Your task to perform on an android device: Go to battery settings Image 0: 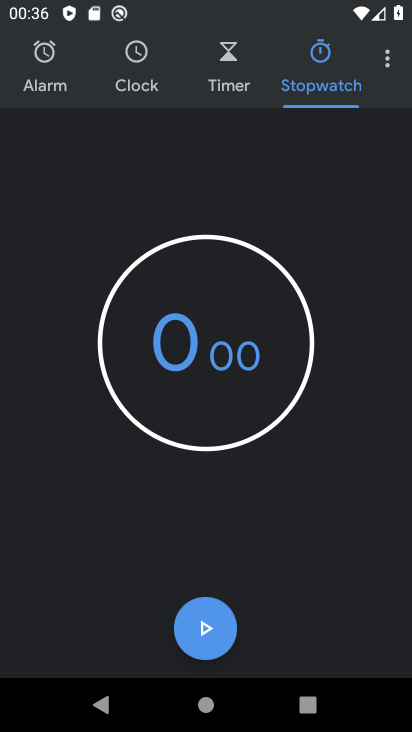
Step 0: press home button
Your task to perform on an android device: Go to battery settings Image 1: 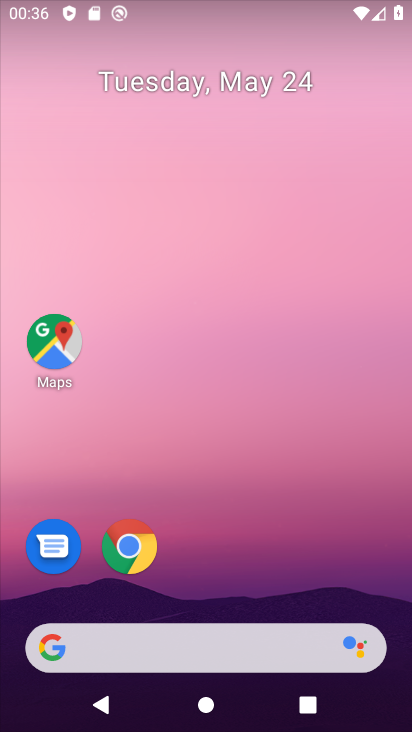
Step 1: drag from (278, 555) to (256, 20)
Your task to perform on an android device: Go to battery settings Image 2: 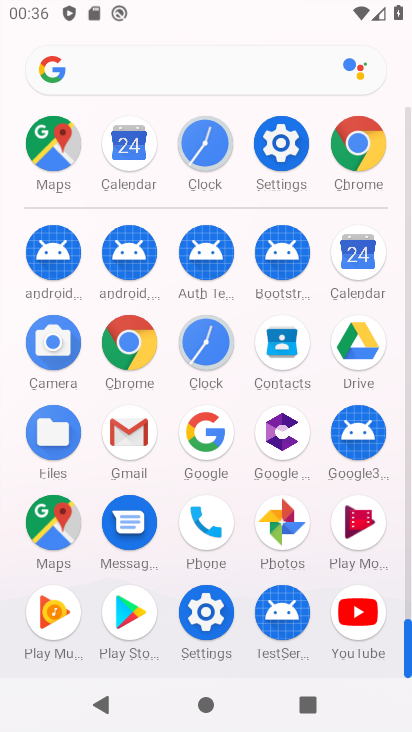
Step 2: click (282, 145)
Your task to perform on an android device: Go to battery settings Image 3: 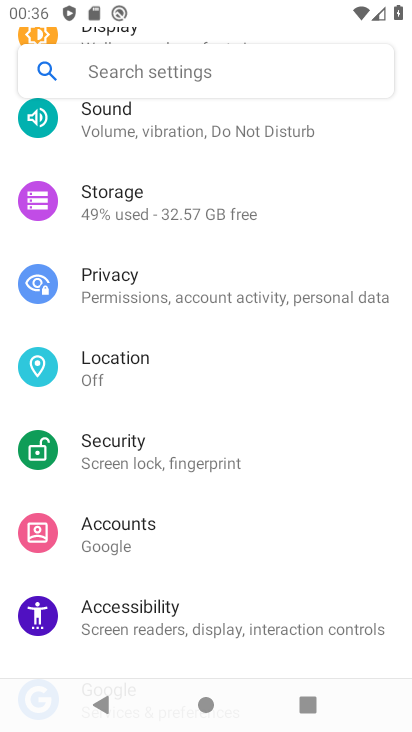
Step 3: drag from (152, 210) to (150, 685)
Your task to perform on an android device: Go to battery settings Image 4: 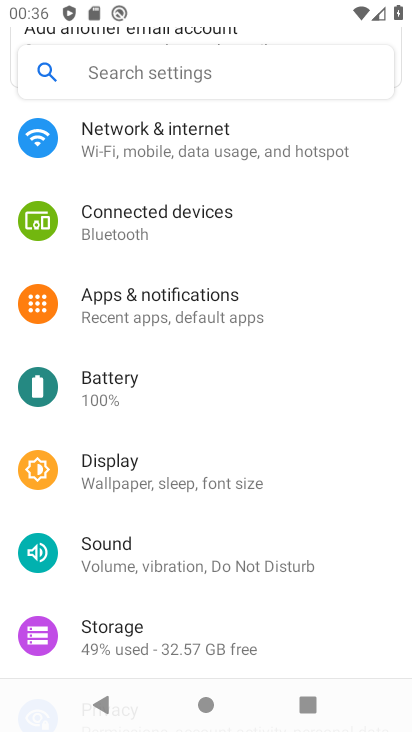
Step 4: click (149, 386)
Your task to perform on an android device: Go to battery settings Image 5: 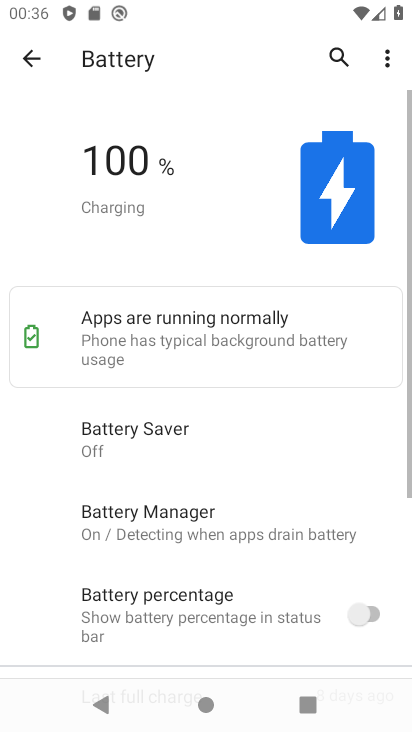
Step 5: task complete